Your task to perform on an android device: all mails in gmail Image 0: 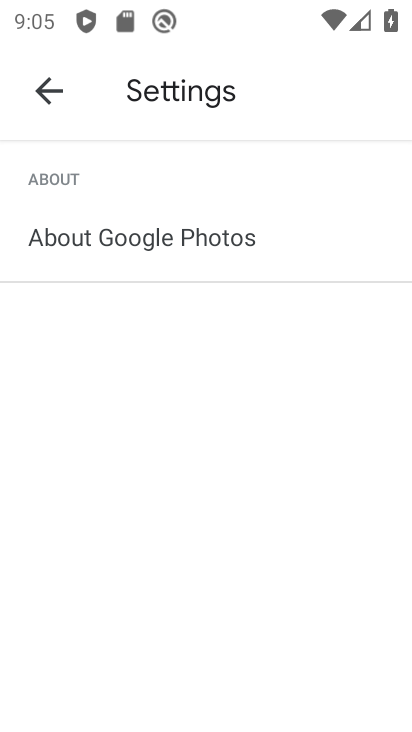
Step 0: press home button
Your task to perform on an android device: all mails in gmail Image 1: 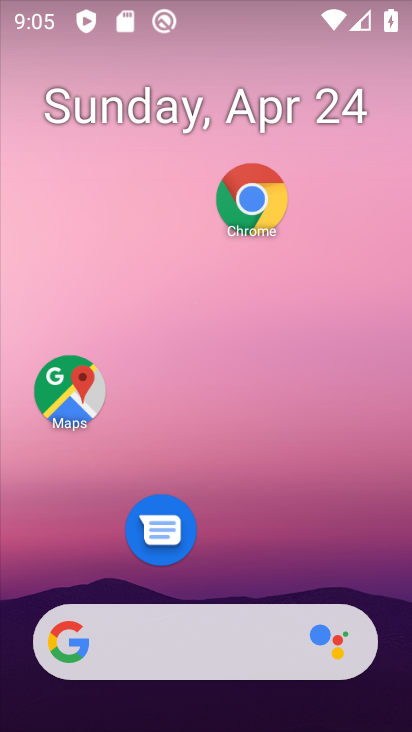
Step 1: drag from (225, 562) to (175, 271)
Your task to perform on an android device: all mails in gmail Image 2: 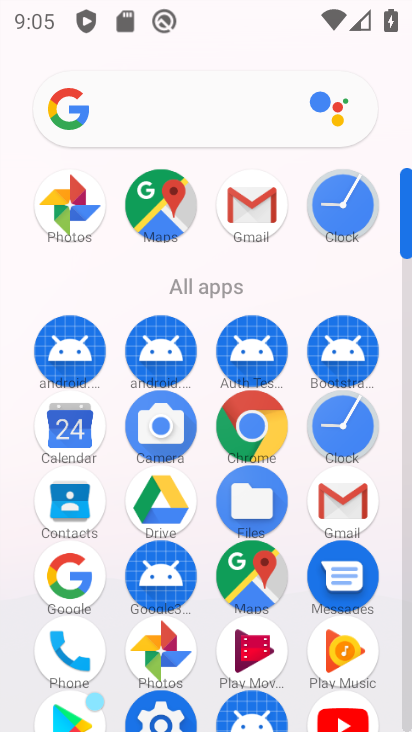
Step 2: click (342, 502)
Your task to perform on an android device: all mails in gmail Image 3: 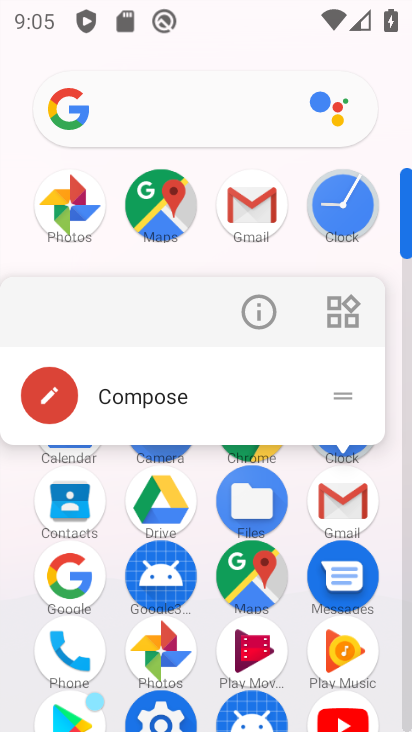
Step 3: click (252, 311)
Your task to perform on an android device: all mails in gmail Image 4: 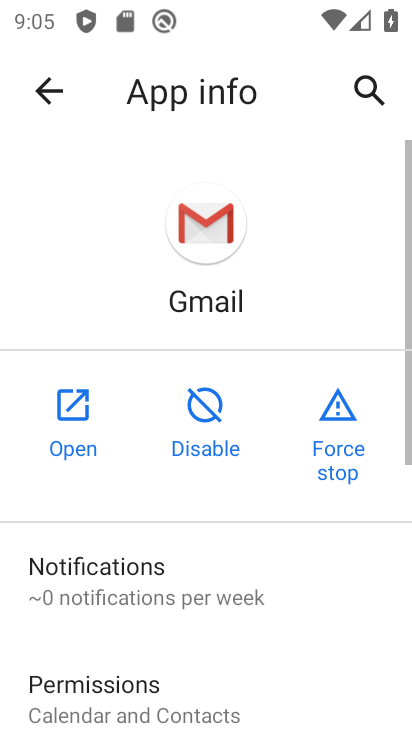
Step 4: click (90, 424)
Your task to perform on an android device: all mails in gmail Image 5: 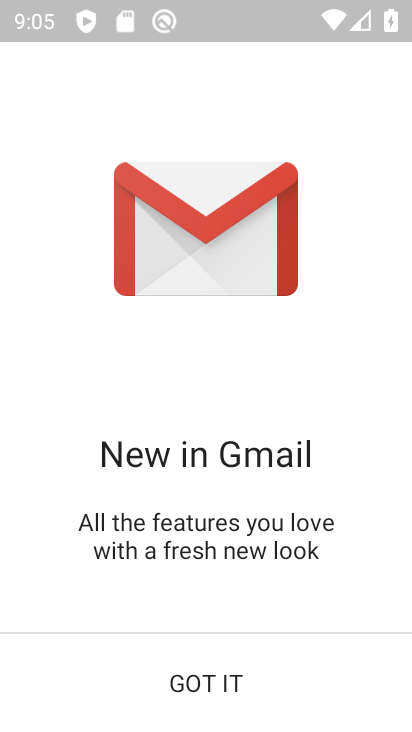
Step 5: click (213, 666)
Your task to perform on an android device: all mails in gmail Image 6: 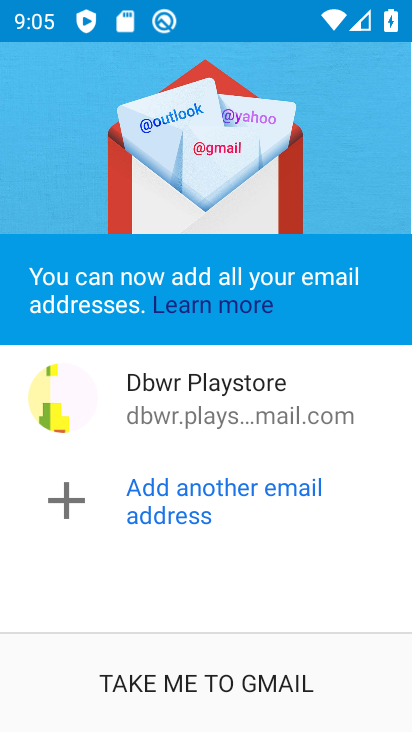
Step 6: click (227, 672)
Your task to perform on an android device: all mails in gmail Image 7: 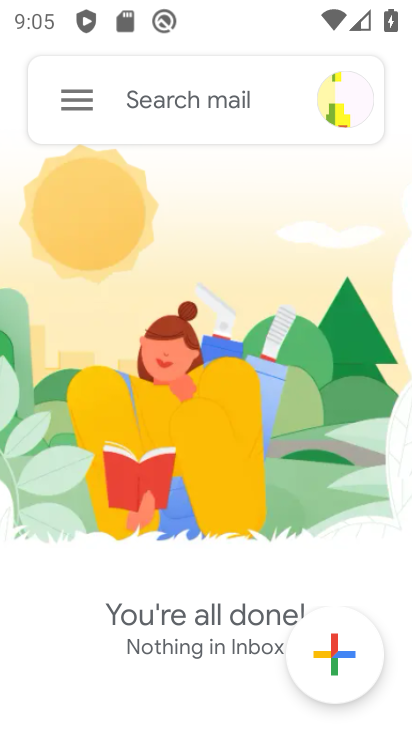
Step 7: click (70, 96)
Your task to perform on an android device: all mails in gmail Image 8: 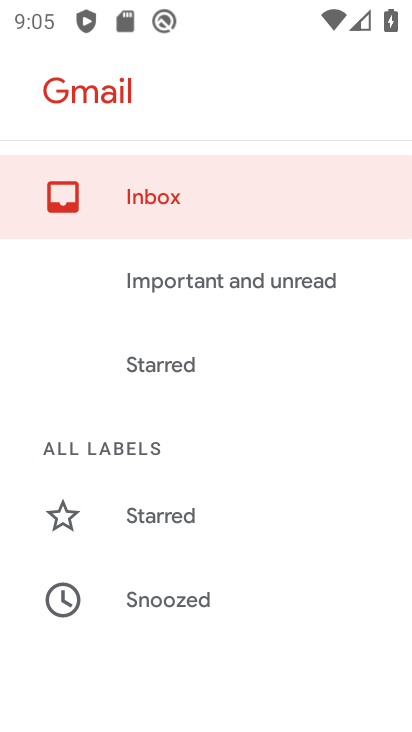
Step 8: drag from (209, 566) to (245, 120)
Your task to perform on an android device: all mails in gmail Image 9: 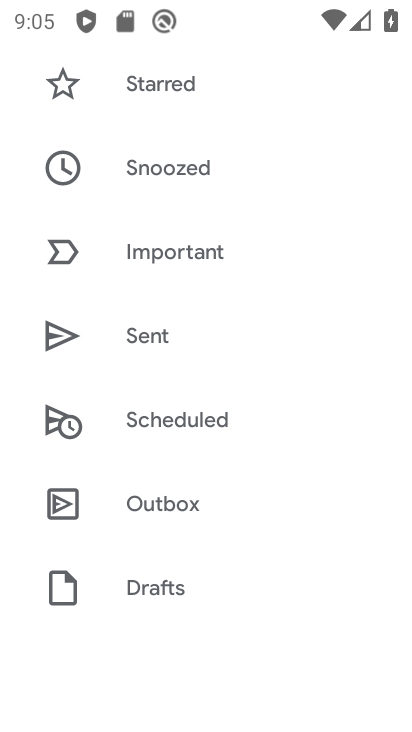
Step 9: drag from (116, 469) to (161, 139)
Your task to perform on an android device: all mails in gmail Image 10: 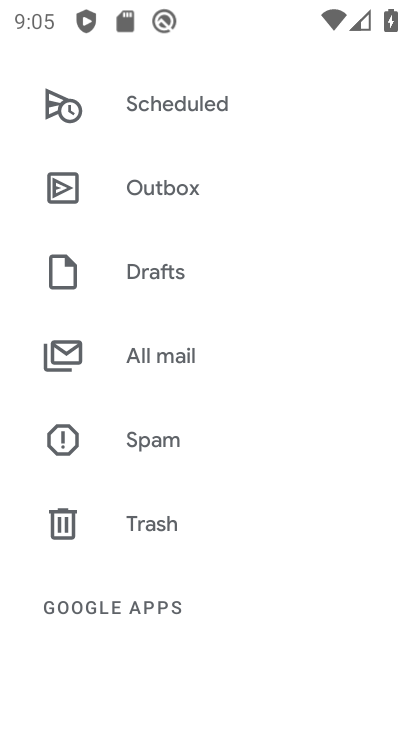
Step 10: click (163, 356)
Your task to perform on an android device: all mails in gmail Image 11: 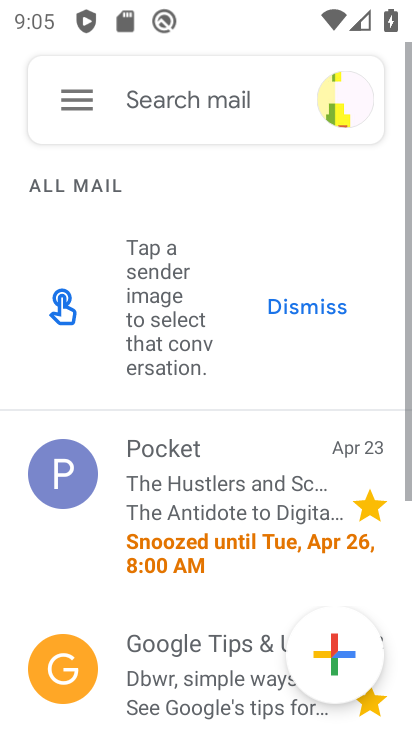
Step 11: task complete